Your task to perform on an android device: Go to location settings Image 0: 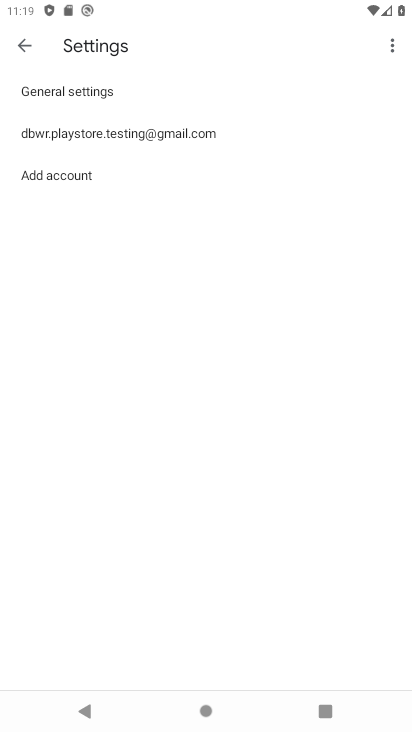
Step 0: press home button
Your task to perform on an android device: Go to location settings Image 1: 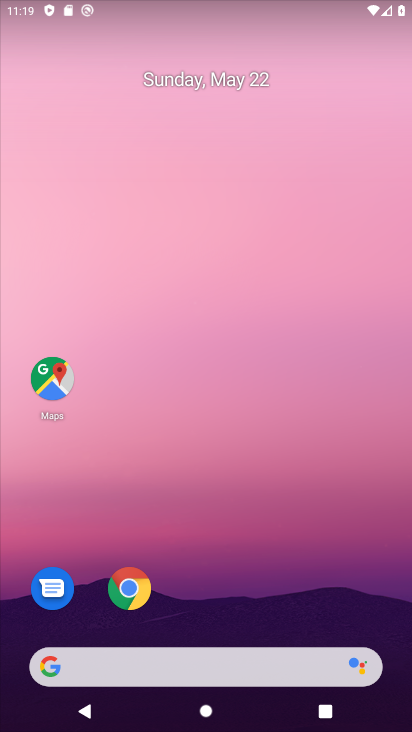
Step 1: drag from (230, 684) to (280, 8)
Your task to perform on an android device: Go to location settings Image 2: 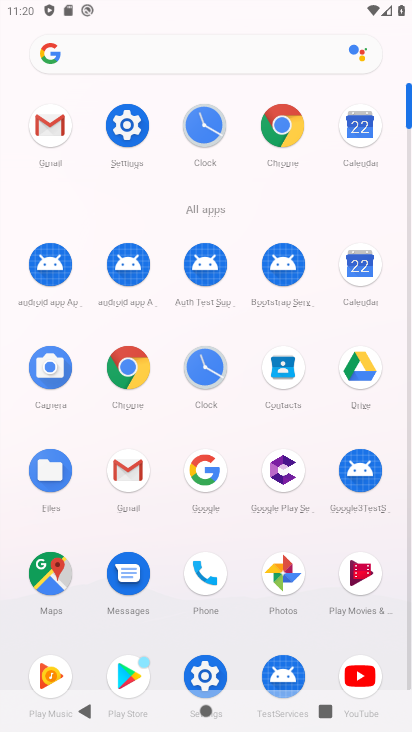
Step 2: click (131, 128)
Your task to perform on an android device: Go to location settings Image 3: 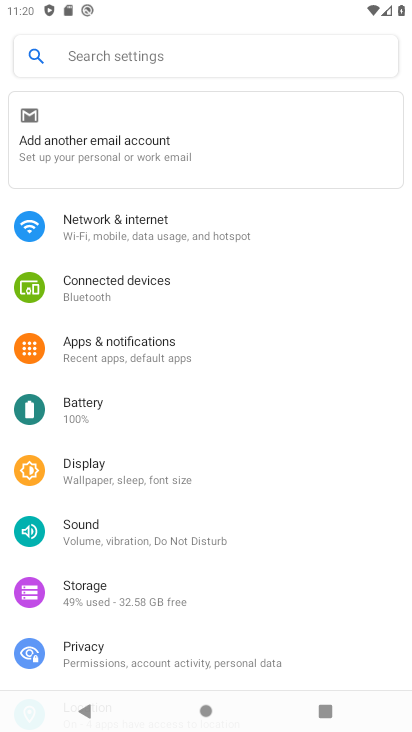
Step 3: click (156, 47)
Your task to perform on an android device: Go to location settings Image 4: 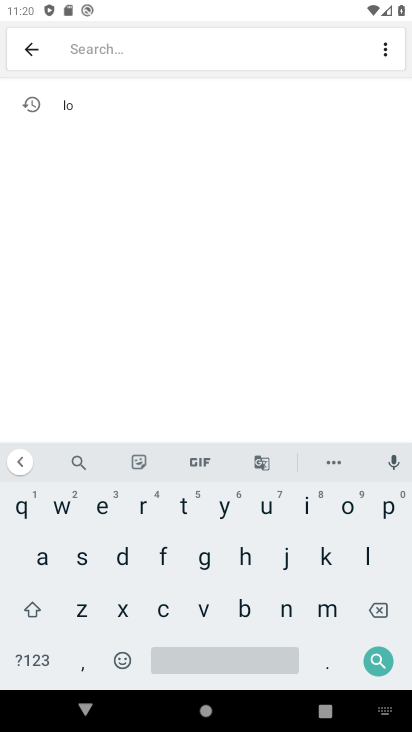
Step 4: click (370, 556)
Your task to perform on an android device: Go to location settings Image 5: 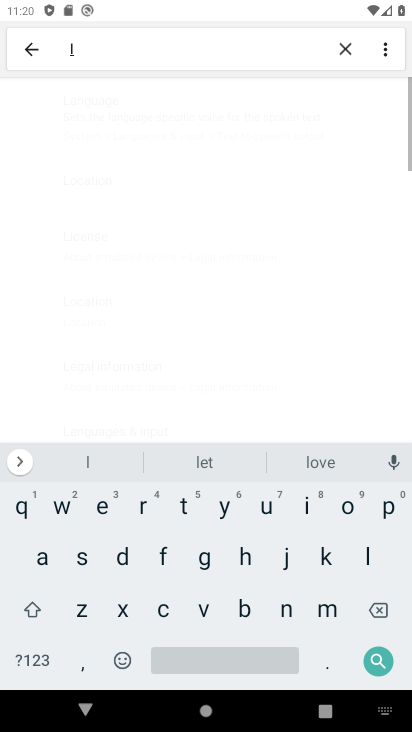
Step 5: click (337, 497)
Your task to perform on an android device: Go to location settings Image 6: 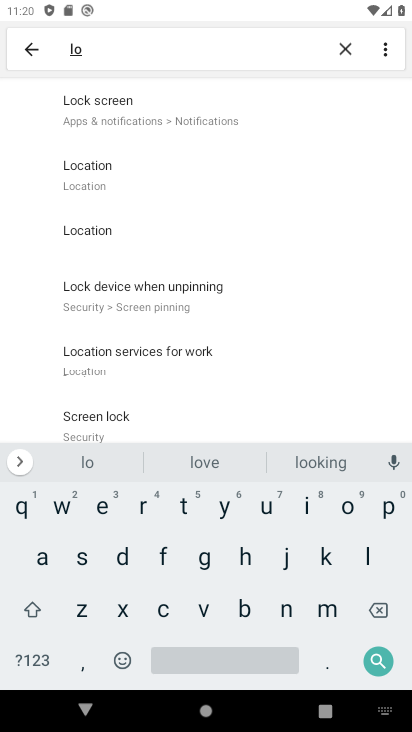
Step 6: click (155, 182)
Your task to perform on an android device: Go to location settings Image 7: 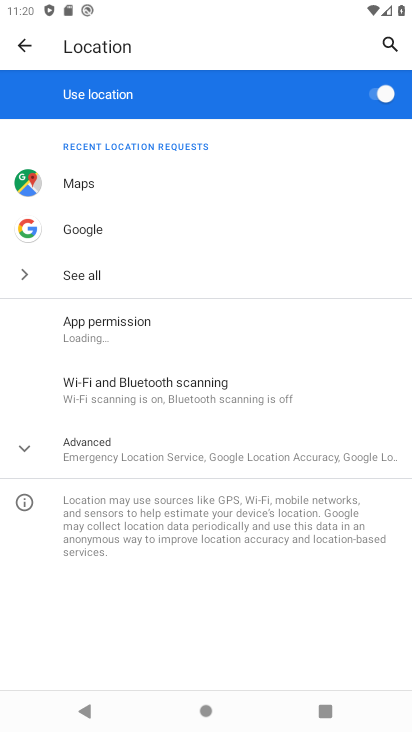
Step 7: task complete